Your task to perform on an android device: Search for sushi restaurants on Maps Image 0: 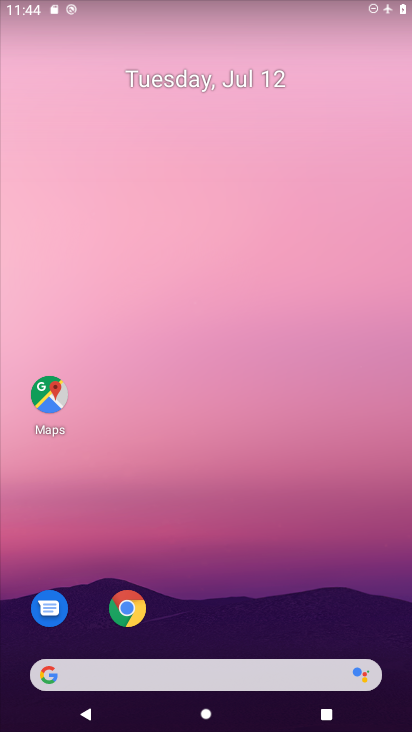
Step 0: drag from (233, 703) to (233, 60)
Your task to perform on an android device: Search for sushi restaurants on Maps Image 1: 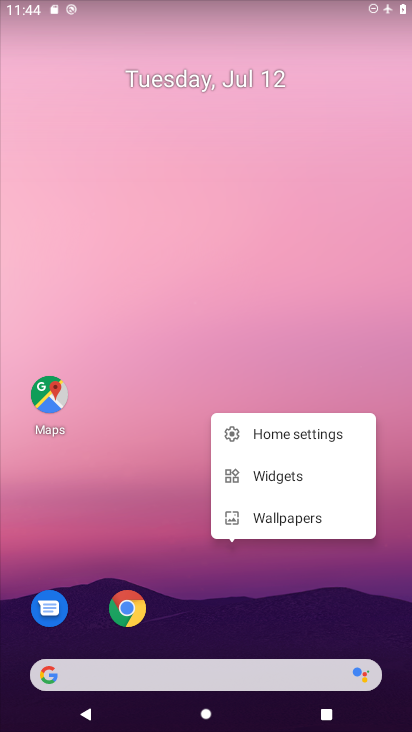
Step 1: click (310, 356)
Your task to perform on an android device: Search for sushi restaurants on Maps Image 2: 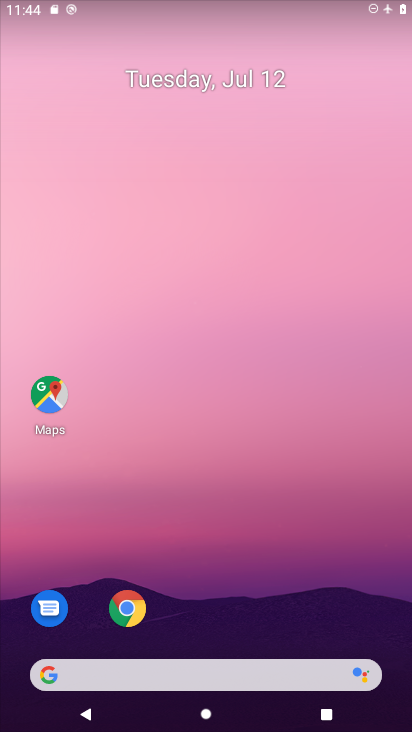
Step 2: drag from (248, 730) to (275, 128)
Your task to perform on an android device: Search for sushi restaurants on Maps Image 3: 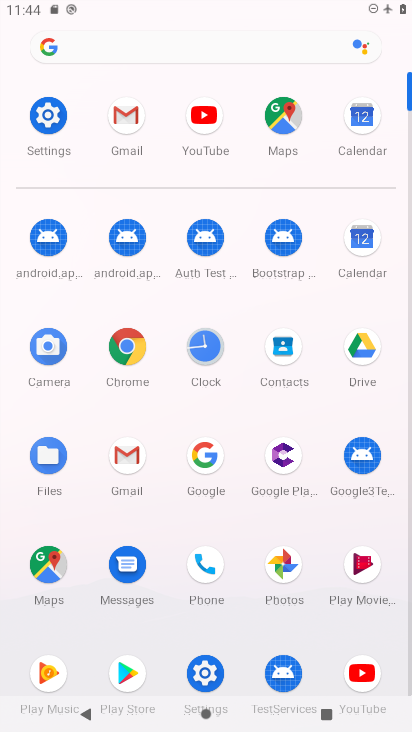
Step 3: click (47, 560)
Your task to perform on an android device: Search for sushi restaurants on Maps Image 4: 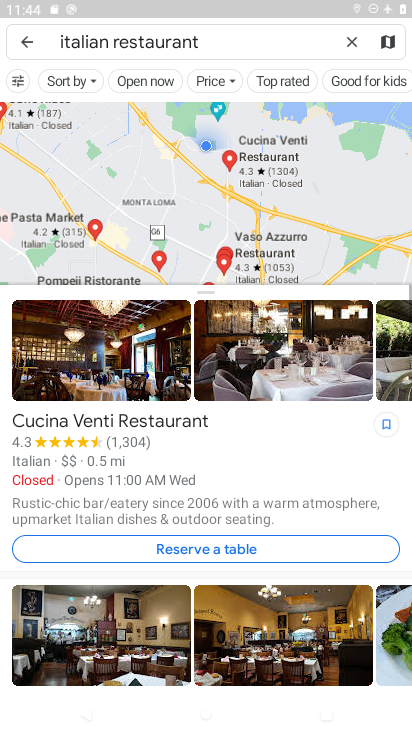
Step 4: click (354, 38)
Your task to perform on an android device: Search for sushi restaurants on Maps Image 5: 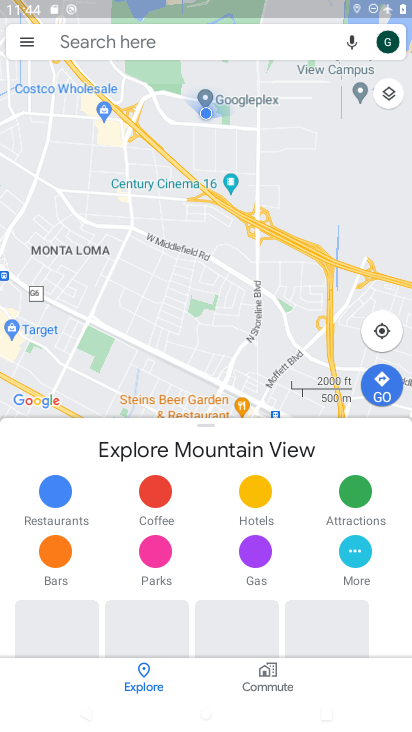
Step 5: click (159, 43)
Your task to perform on an android device: Search for sushi restaurants on Maps Image 6: 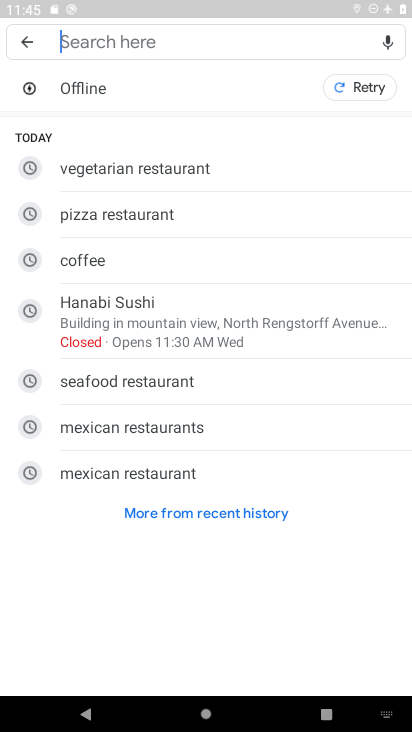
Step 6: type "sushi restaurants"
Your task to perform on an android device: Search for sushi restaurants on Maps Image 7: 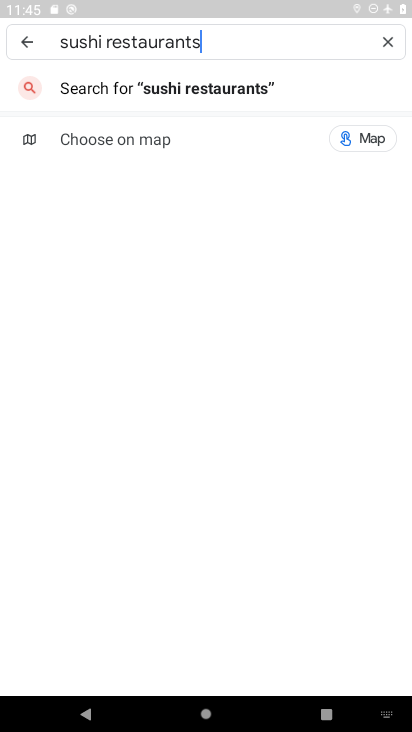
Step 7: type ""
Your task to perform on an android device: Search for sushi restaurants on Maps Image 8: 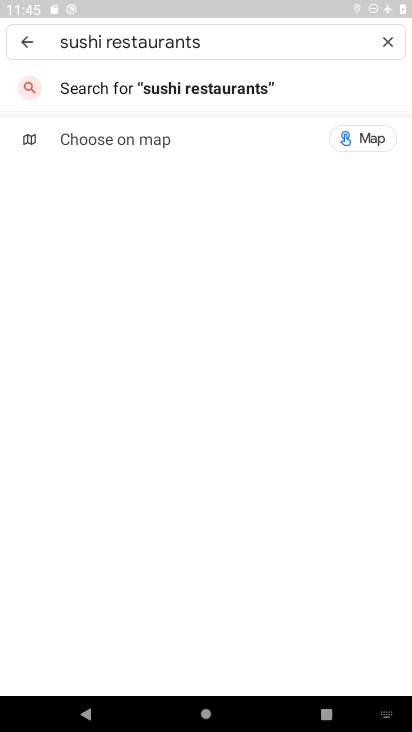
Step 8: click (166, 95)
Your task to perform on an android device: Search for sushi restaurants on Maps Image 9: 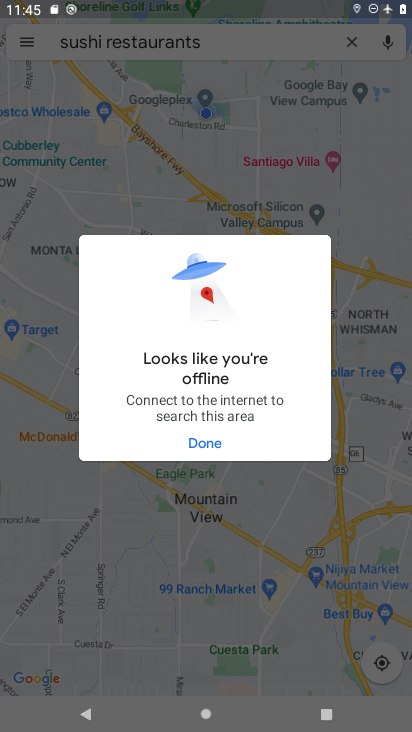
Step 9: task complete